Your task to perform on an android device: toggle improve location accuracy Image 0: 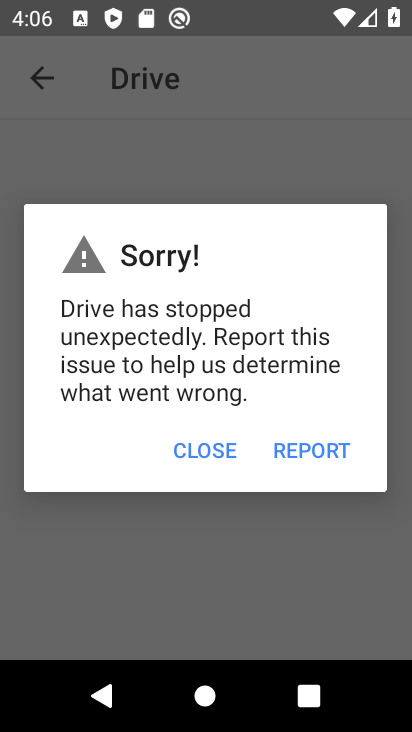
Step 0: press home button
Your task to perform on an android device: toggle improve location accuracy Image 1: 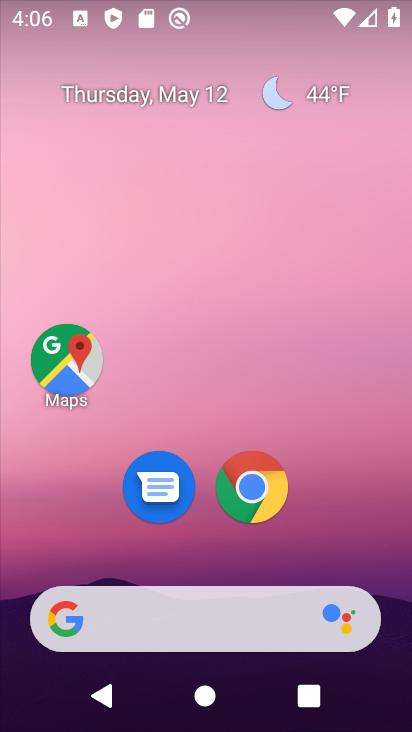
Step 1: drag from (302, 541) to (363, 88)
Your task to perform on an android device: toggle improve location accuracy Image 2: 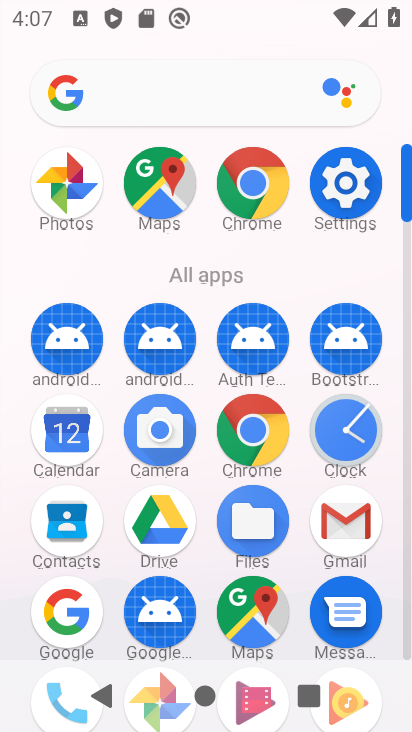
Step 2: click (345, 165)
Your task to perform on an android device: toggle improve location accuracy Image 3: 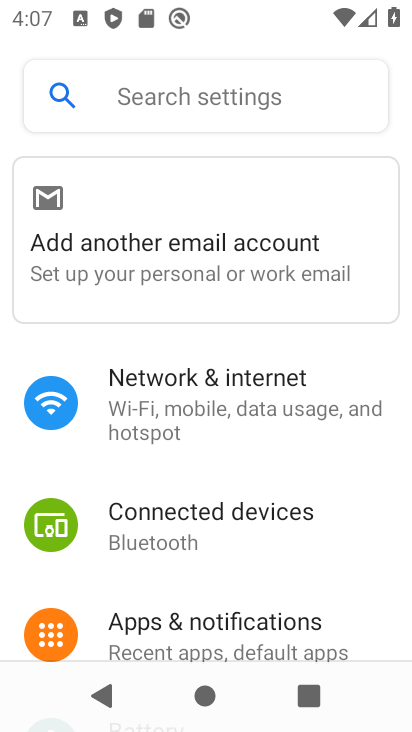
Step 3: drag from (294, 569) to (329, 154)
Your task to perform on an android device: toggle improve location accuracy Image 4: 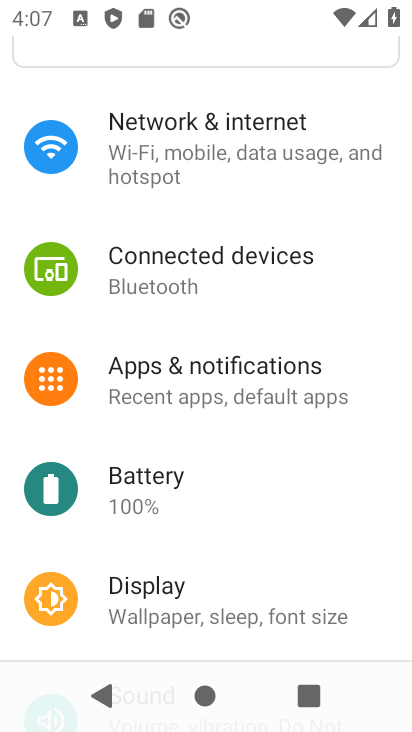
Step 4: drag from (245, 492) to (300, 180)
Your task to perform on an android device: toggle improve location accuracy Image 5: 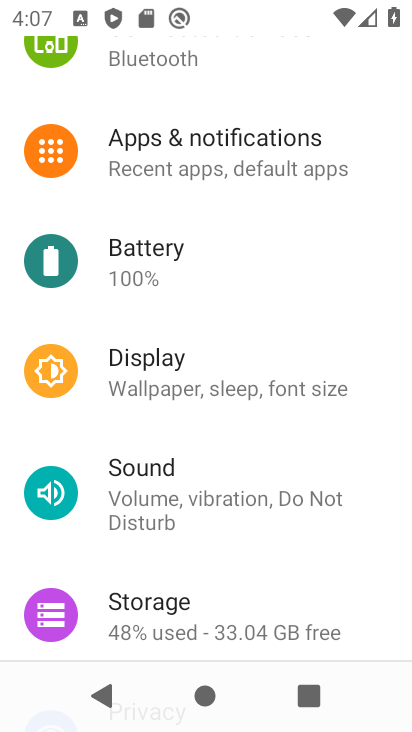
Step 5: drag from (218, 544) to (285, 267)
Your task to perform on an android device: toggle improve location accuracy Image 6: 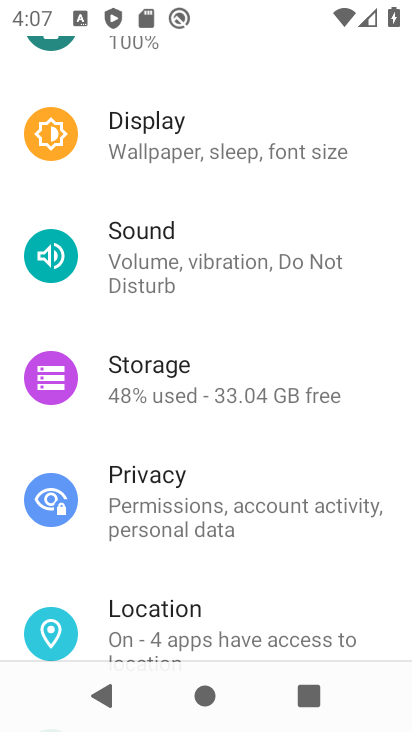
Step 6: click (170, 593)
Your task to perform on an android device: toggle improve location accuracy Image 7: 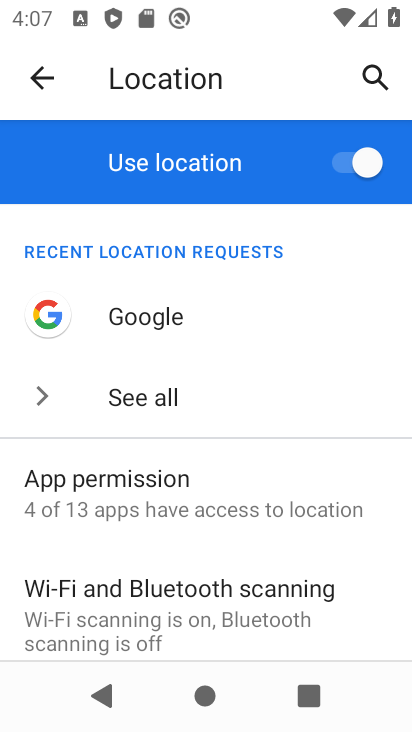
Step 7: drag from (272, 572) to (313, 237)
Your task to perform on an android device: toggle improve location accuracy Image 8: 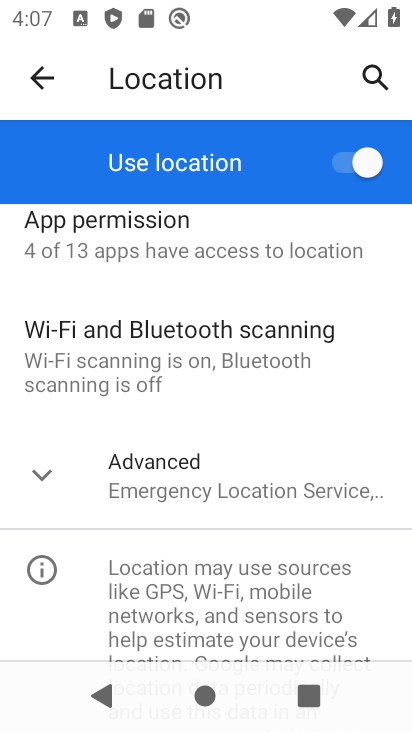
Step 8: click (194, 457)
Your task to perform on an android device: toggle improve location accuracy Image 9: 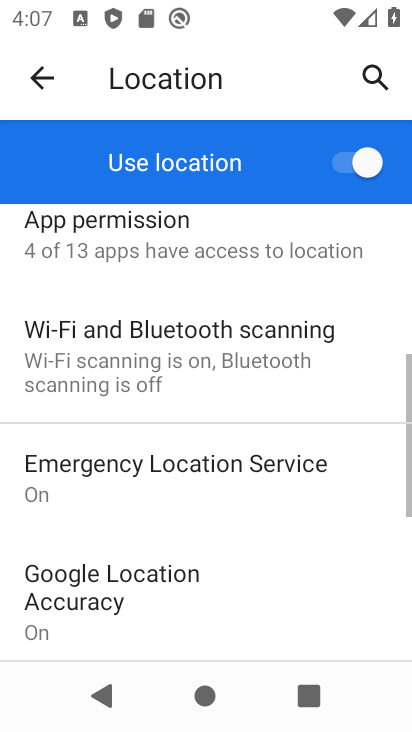
Step 9: drag from (237, 592) to (254, 257)
Your task to perform on an android device: toggle improve location accuracy Image 10: 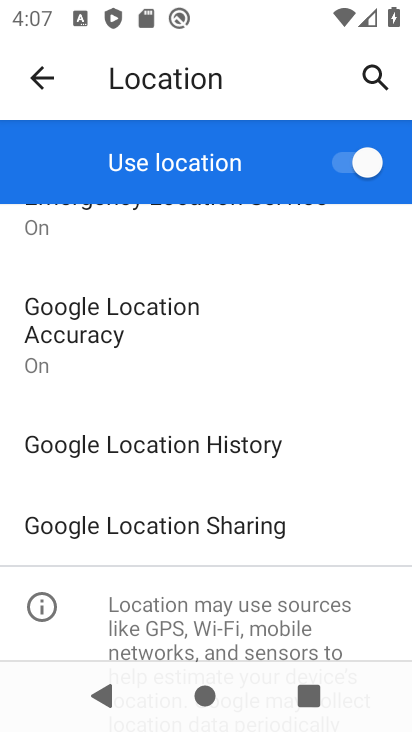
Step 10: click (217, 332)
Your task to perform on an android device: toggle improve location accuracy Image 11: 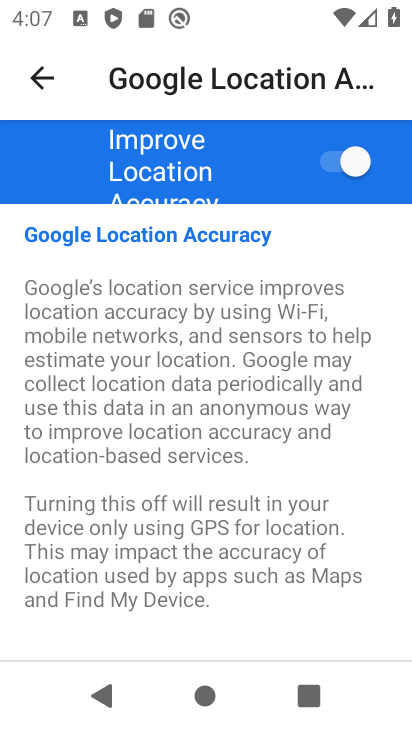
Step 11: click (329, 161)
Your task to perform on an android device: toggle improve location accuracy Image 12: 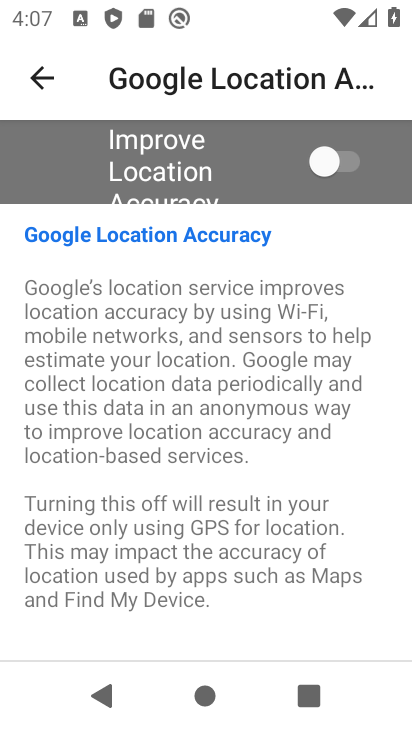
Step 12: task complete